Your task to perform on an android device: Check the news Image 0: 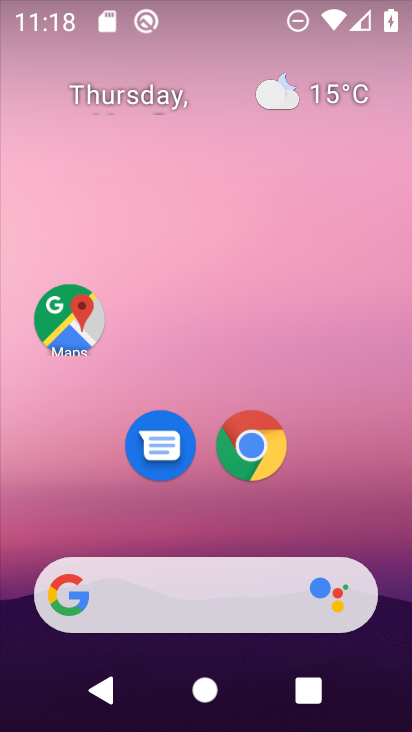
Step 0: drag from (225, 526) to (212, 31)
Your task to perform on an android device: Check the news Image 1: 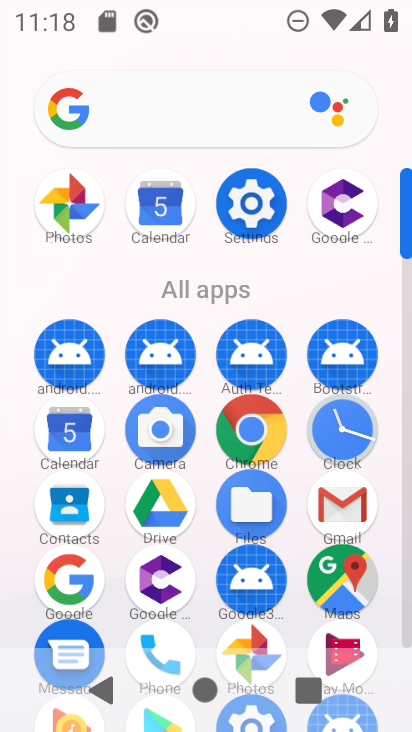
Step 1: click (66, 592)
Your task to perform on an android device: Check the news Image 2: 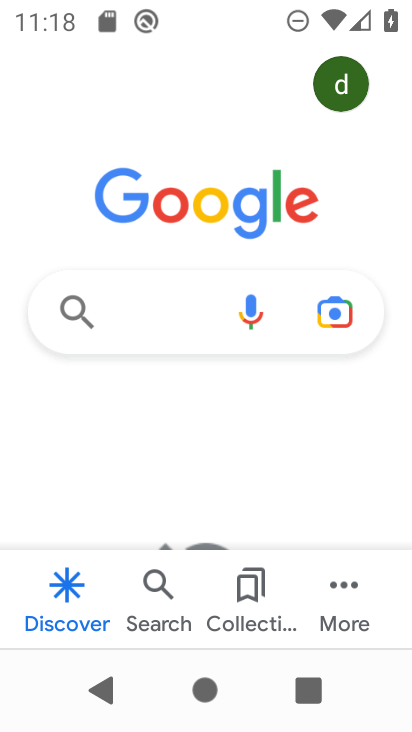
Step 2: task complete